Your task to perform on an android device: toggle sleep mode Image 0: 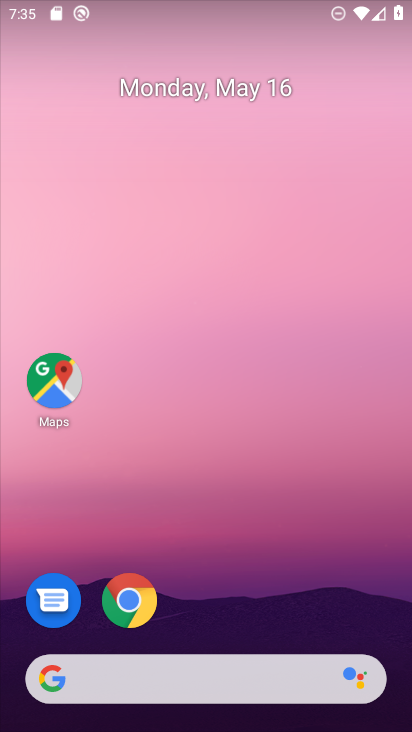
Step 0: drag from (172, 665) to (327, 145)
Your task to perform on an android device: toggle sleep mode Image 1: 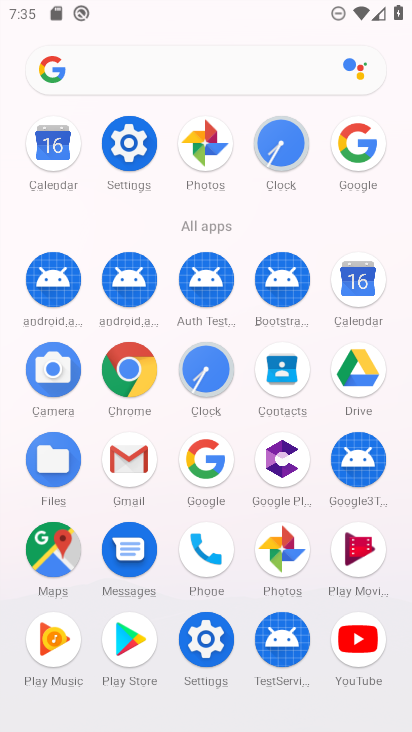
Step 1: click (122, 147)
Your task to perform on an android device: toggle sleep mode Image 2: 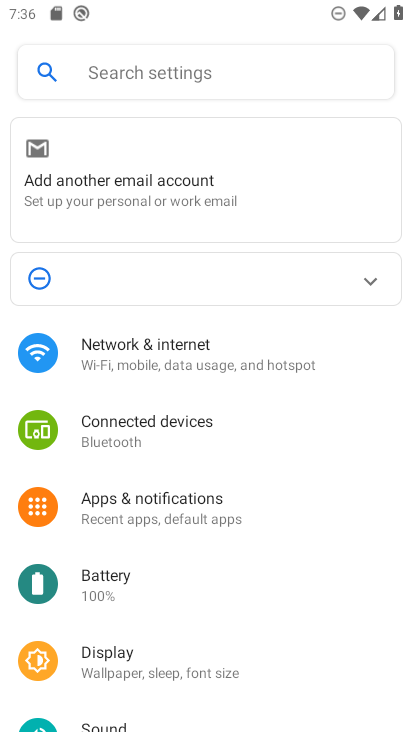
Step 2: click (116, 659)
Your task to perform on an android device: toggle sleep mode Image 3: 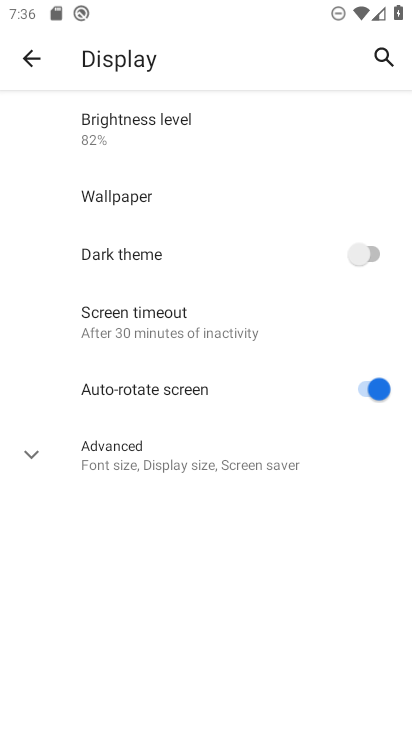
Step 3: task complete